Your task to perform on an android device: find photos in the google photos app Image 0: 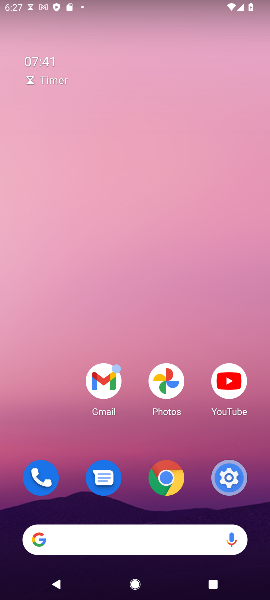
Step 0: click (155, 377)
Your task to perform on an android device: find photos in the google photos app Image 1: 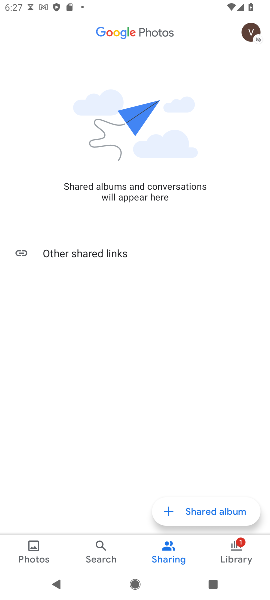
Step 1: click (36, 542)
Your task to perform on an android device: find photos in the google photos app Image 2: 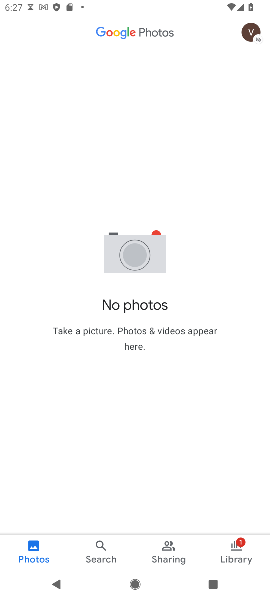
Step 2: task complete